Your task to perform on an android device: turn on sleep mode Image 0: 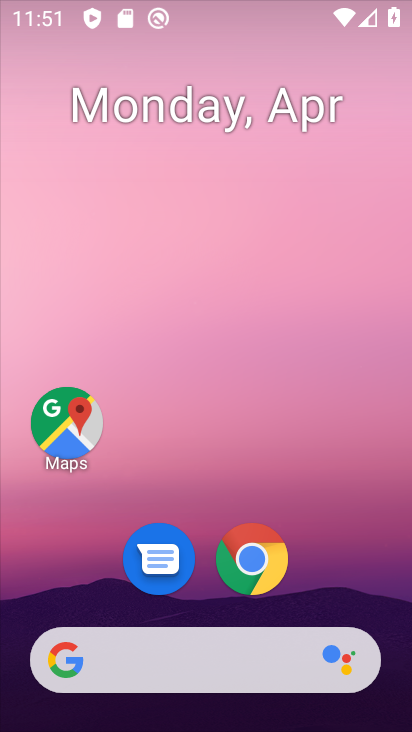
Step 0: drag from (393, 580) to (247, 201)
Your task to perform on an android device: turn on sleep mode Image 1: 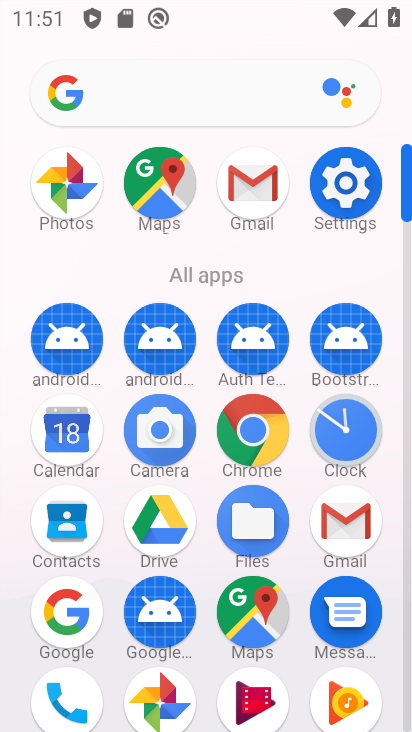
Step 1: click (351, 201)
Your task to perform on an android device: turn on sleep mode Image 2: 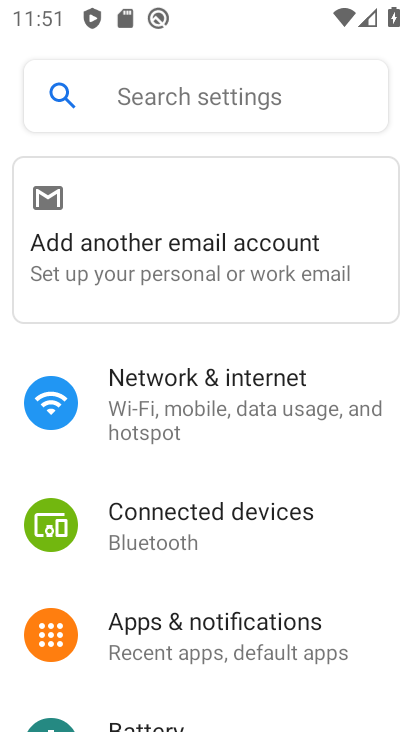
Step 2: drag from (345, 567) to (223, 114)
Your task to perform on an android device: turn on sleep mode Image 3: 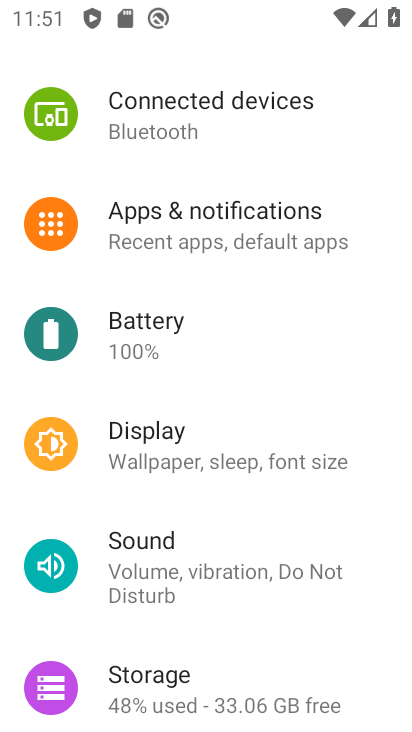
Step 3: click (295, 473)
Your task to perform on an android device: turn on sleep mode Image 4: 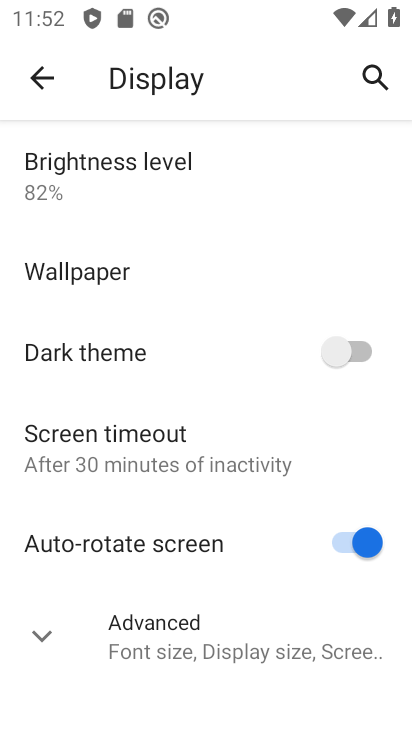
Step 4: click (300, 639)
Your task to perform on an android device: turn on sleep mode Image 5: 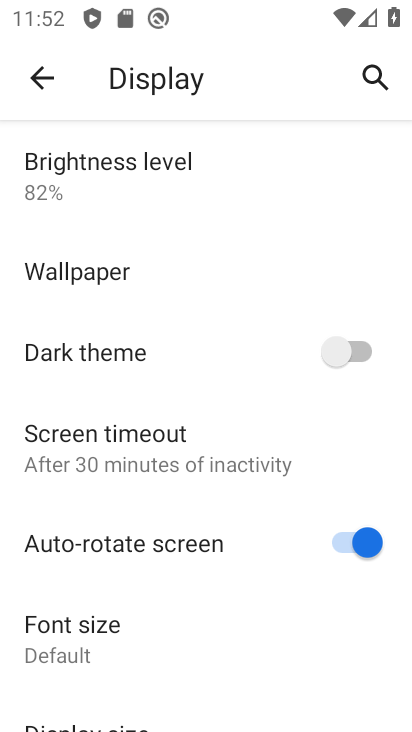
Step 5: task complete